Your task to perform on an android device: Go to eBay Image 0: 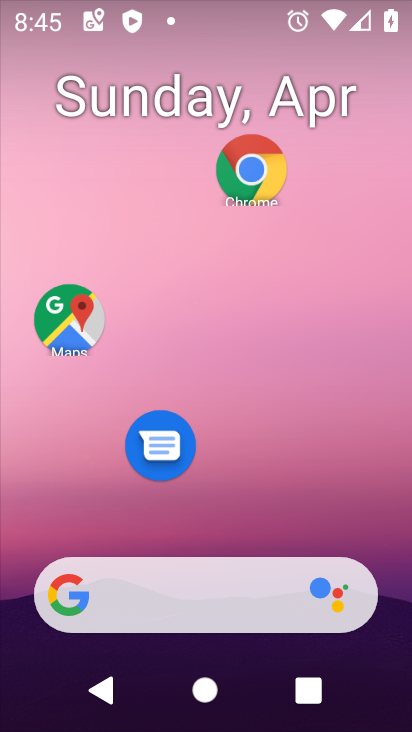
Step 0: drag from (287, 493) to (312, 21)
Your task to perform on an android device: Go to eBay Image 1: 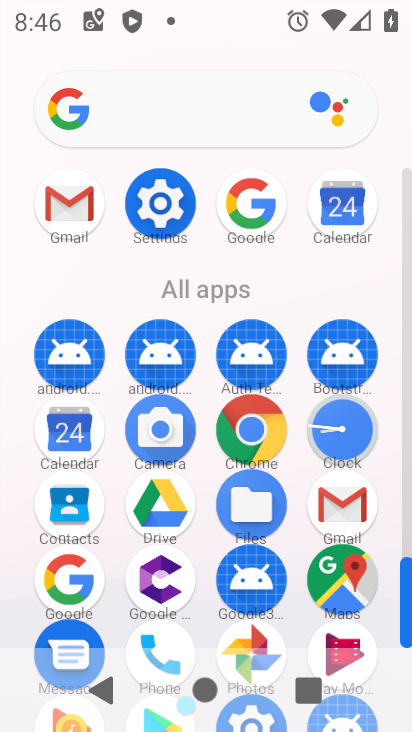
Step 1: click (72, 579)
Your task to perform on an android device: Go to eBay Image 2: 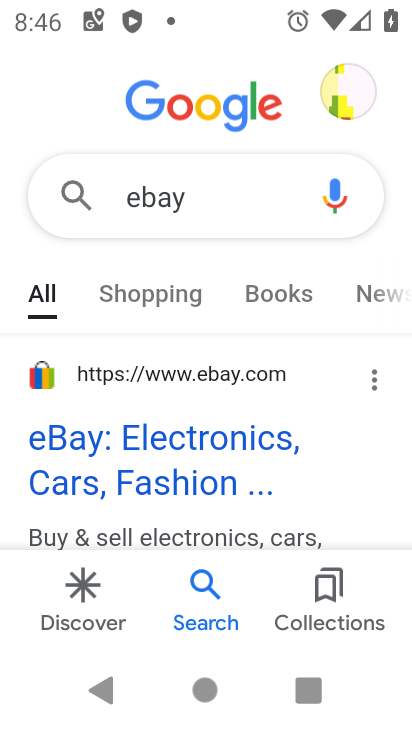
Step 2: task complete